Your task to perform on an android device: Open the map Image 0: 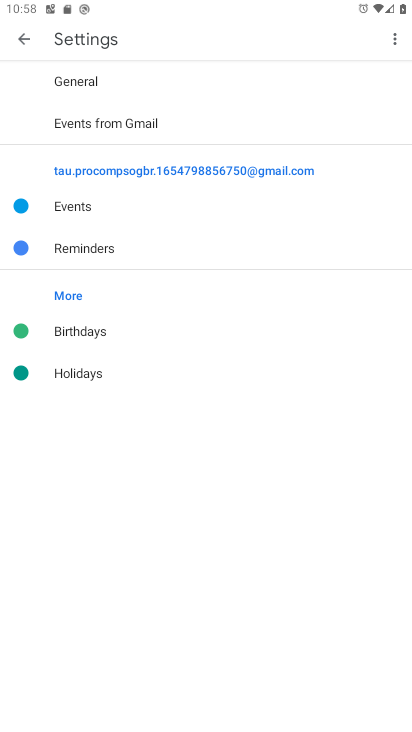
Step 0: press home button
Your task to perform on an android device: Open the map Image 1: 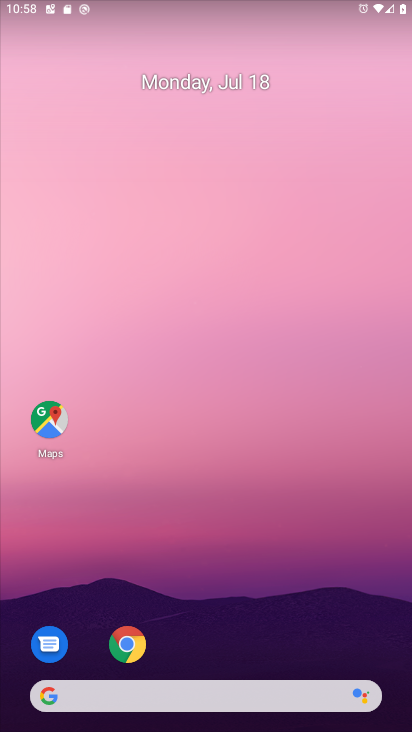
Step 1: click (46, 445)
Your task to perform on an android device: Open the map Image 2: 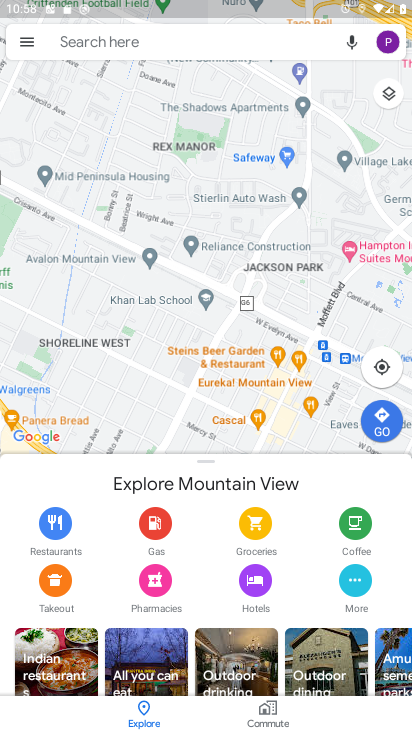
Step 2: task complete